Your task to perform on an android device: Search for seafood restaurants on Google Maps Image 0: 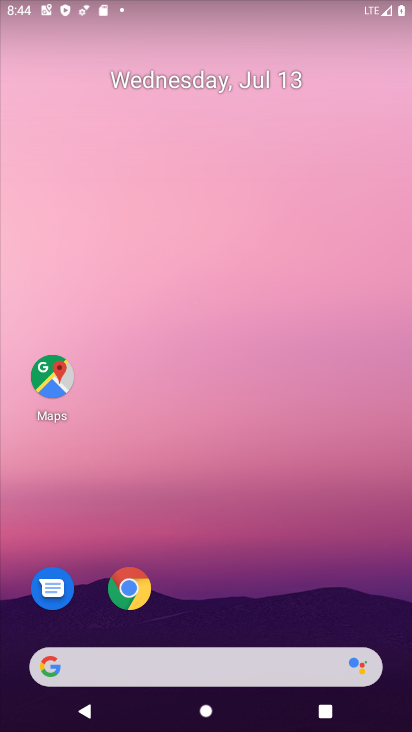
Step 0: drag from (218, 597) to (216, 100)
Your task to perform on an android device: Search for seafood restaurants on Google Maps Image 1: 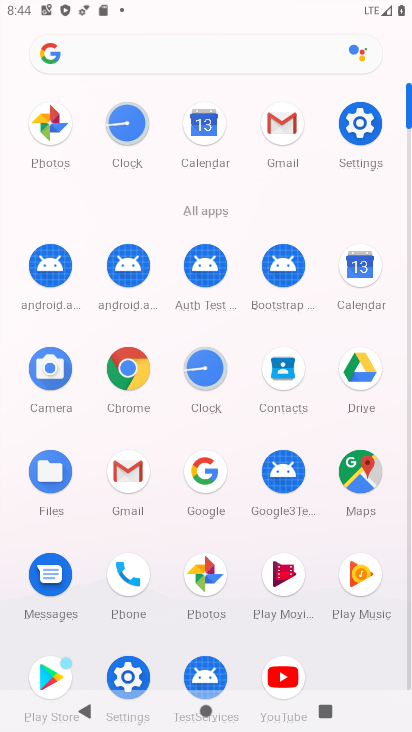
Step 1: click (350, 456)
Your task to perform on an android device: Search for seafood restaurants on Google Maps Image 2: 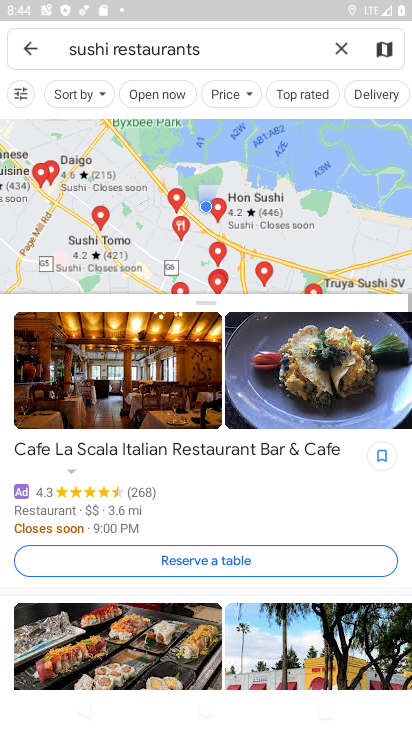
Step 2: click (340, 42)
Your task to perform on an android device: Search for seafood restaurants on Google Maps Image 3: 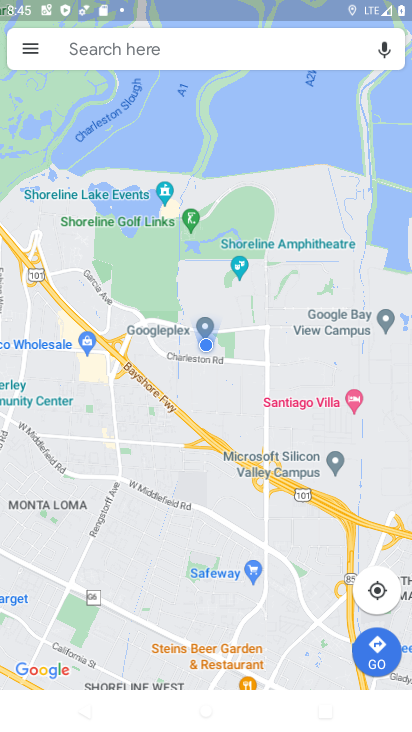
Step 3: click (200, 64)
Your task to perform on an android device: Search for seafood restaurants on Google Maps Image 4: 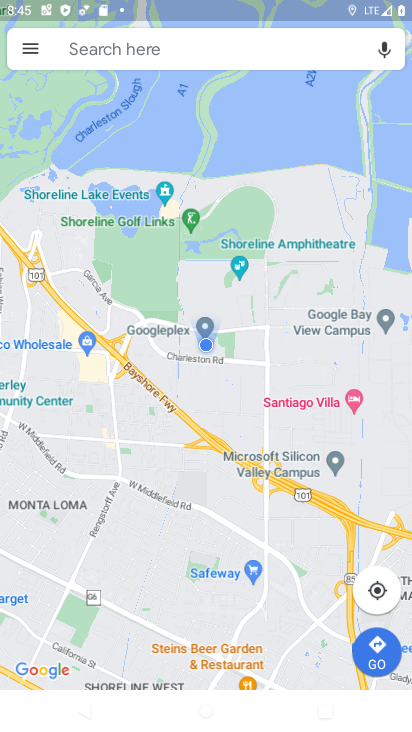
Step 4: click (200, 46)
Your task to perform on an android device: Search for seafood restaurants on Google Maps Image 5: 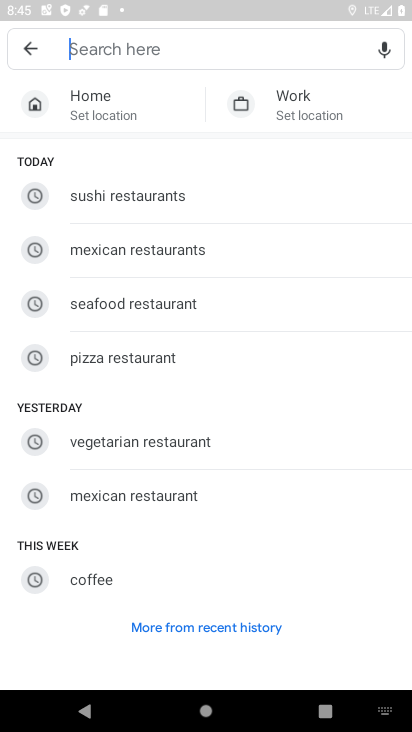
Step 5: type "seafood restaurants "
Your task to perform on an android device: Search for seafood restaurants on Google Maps Image 6: 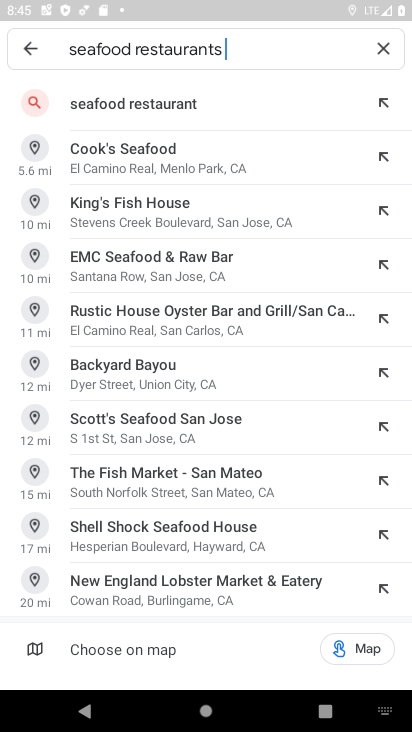
Step 6: click (215, 101)
Your task to perform on an android device: Search for seafood restaurants on Google Maps Image 7: 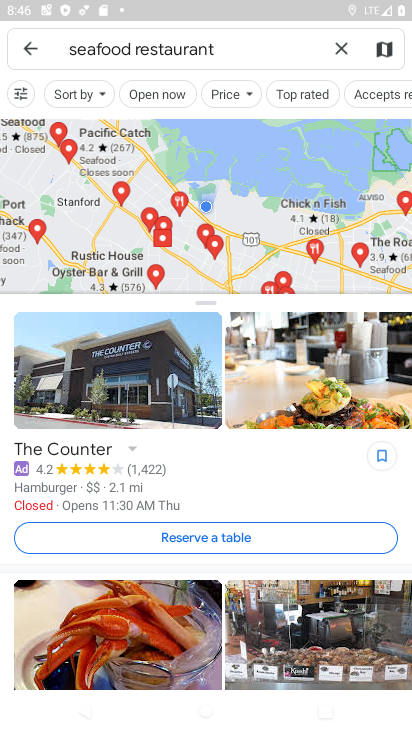
Step 7: task complete